Your task to perform on an android device: Open Android settings Image 0: 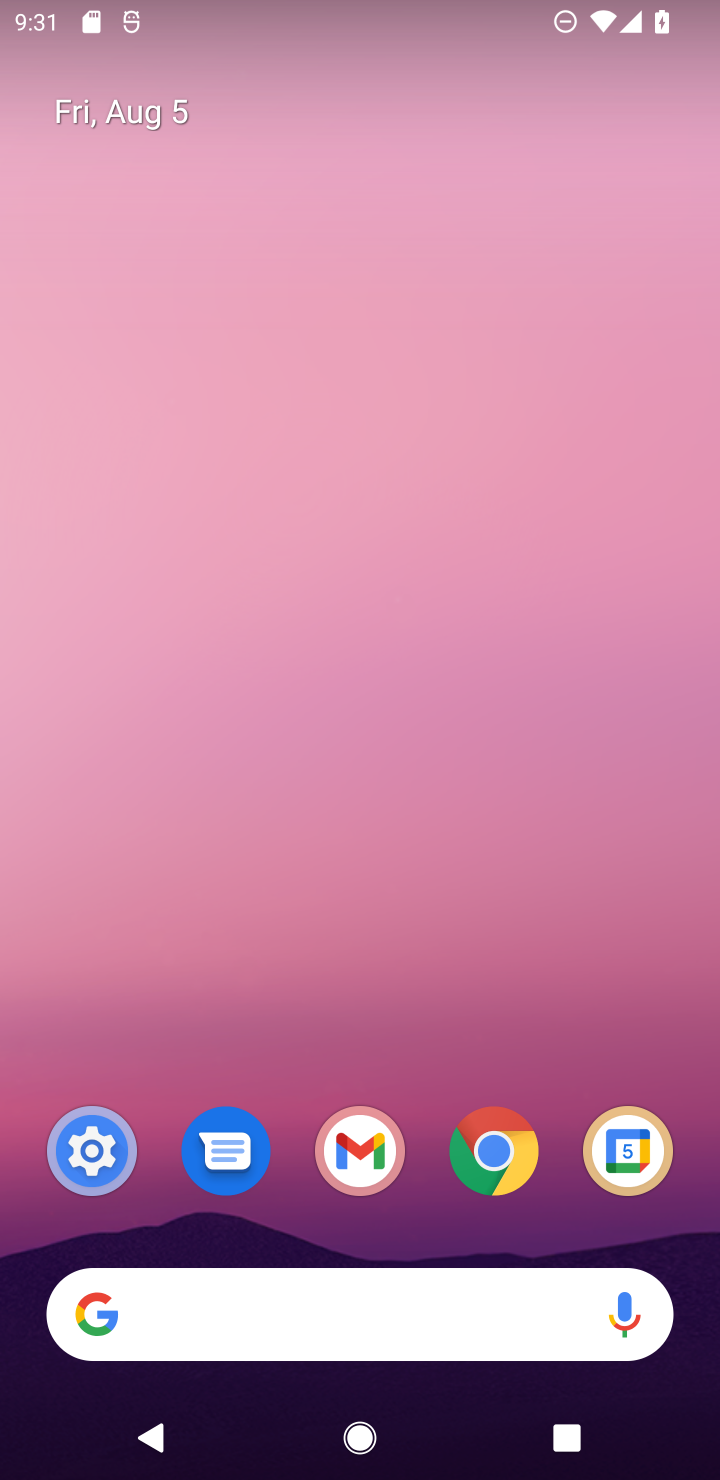
Step 0: click (95, 1149)
Your task to perform on an android device: Open Android settings Image 1: 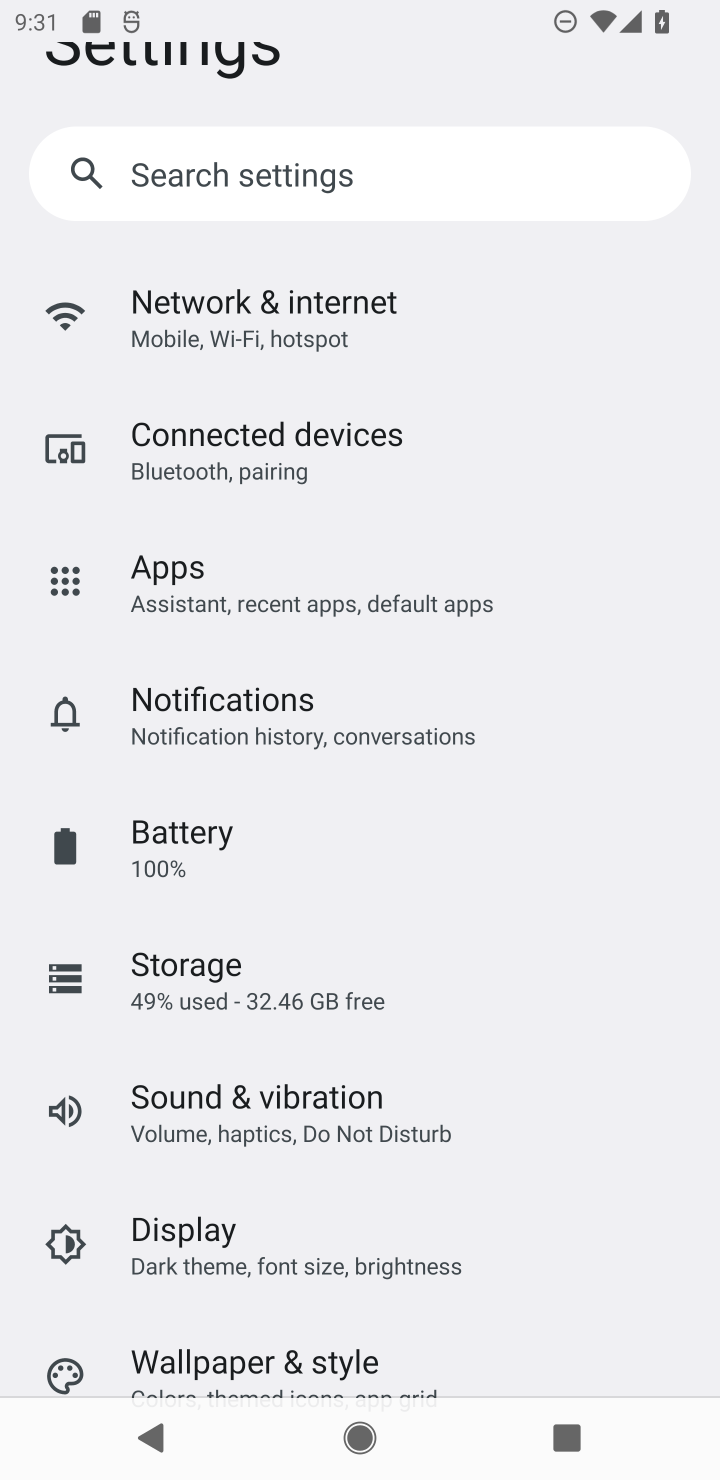
Step 1: drag from (419, 783) to (438, 295)
Your task to perform on an android device: Open Android settings Image 2: 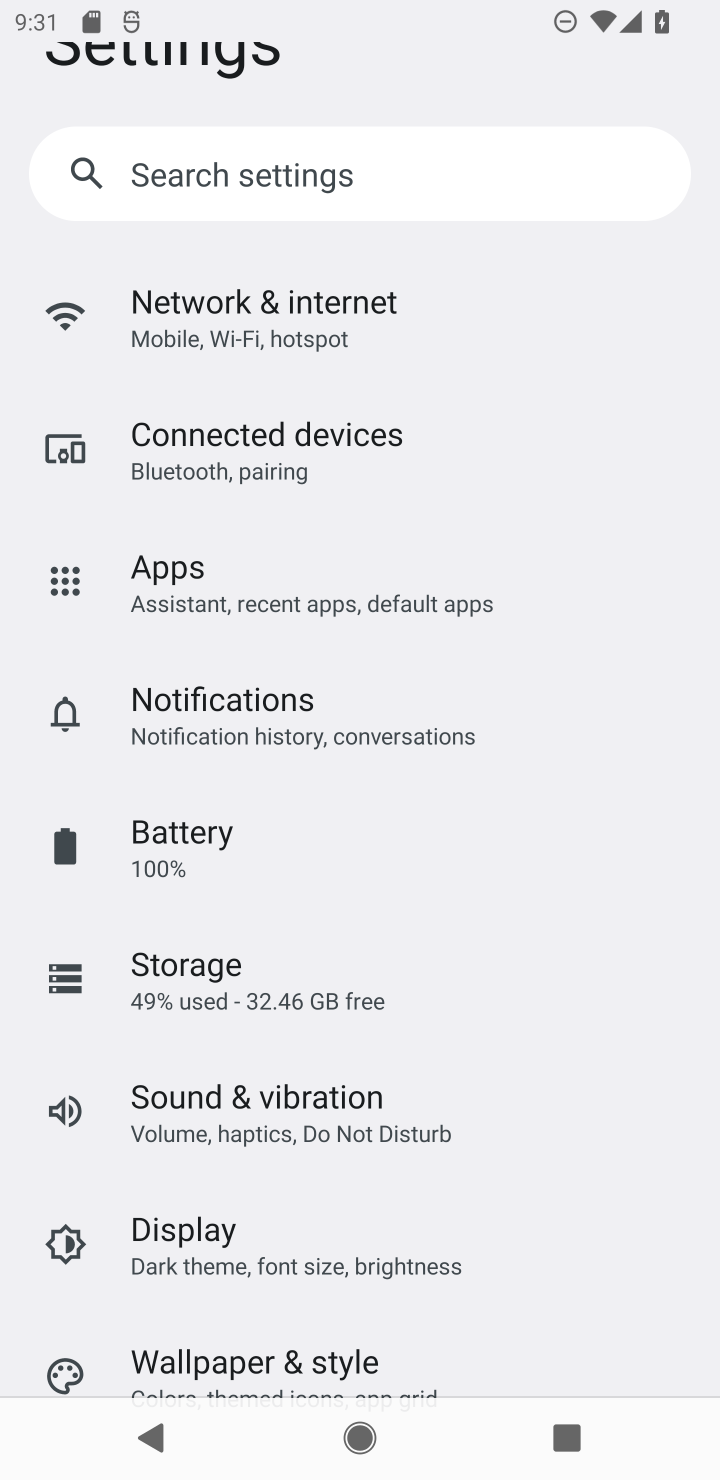
Step 2: drag from (250, 1060) to (309, 221)
Your task to perform on an android device: Open Android settings Image 3: 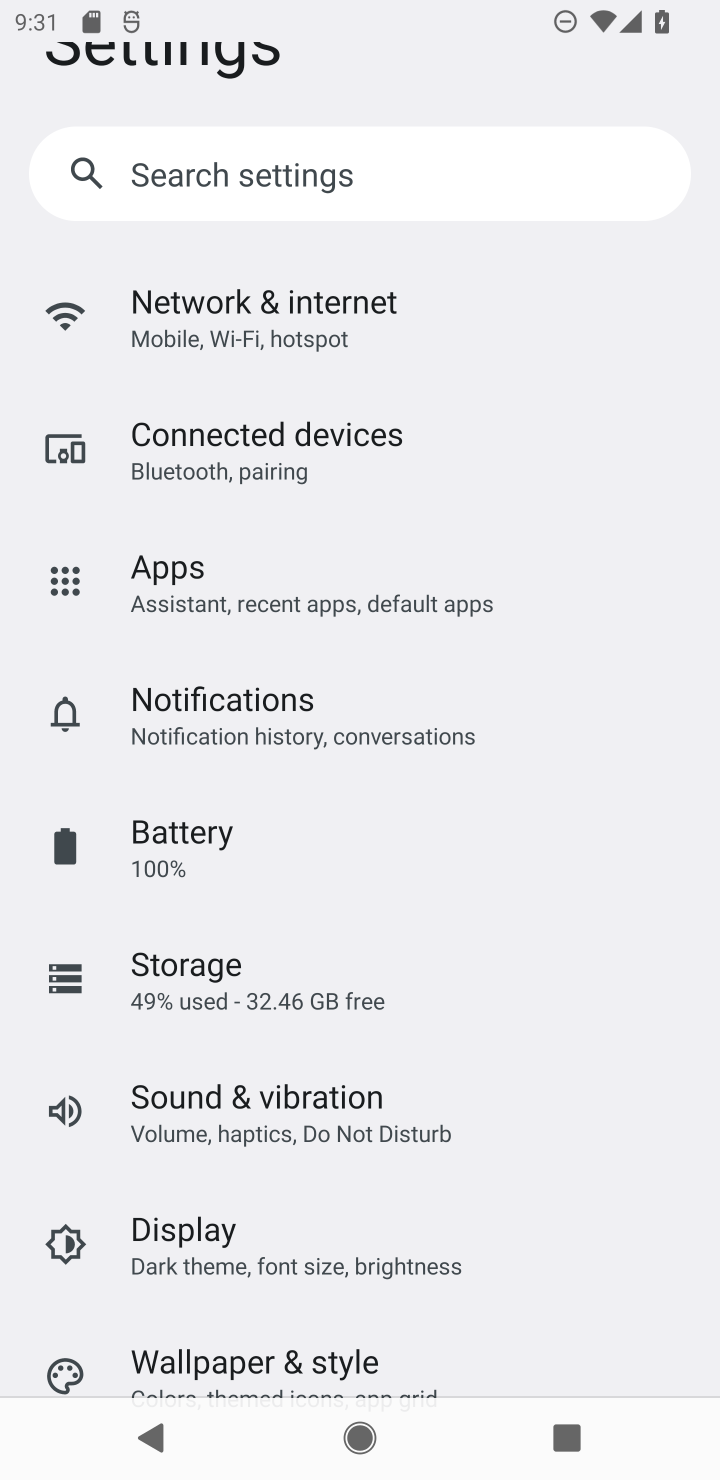
Step 3: drag from (280, 951) to (334, 332)
Your task to perform on an android device: Open Android settings Image 4: 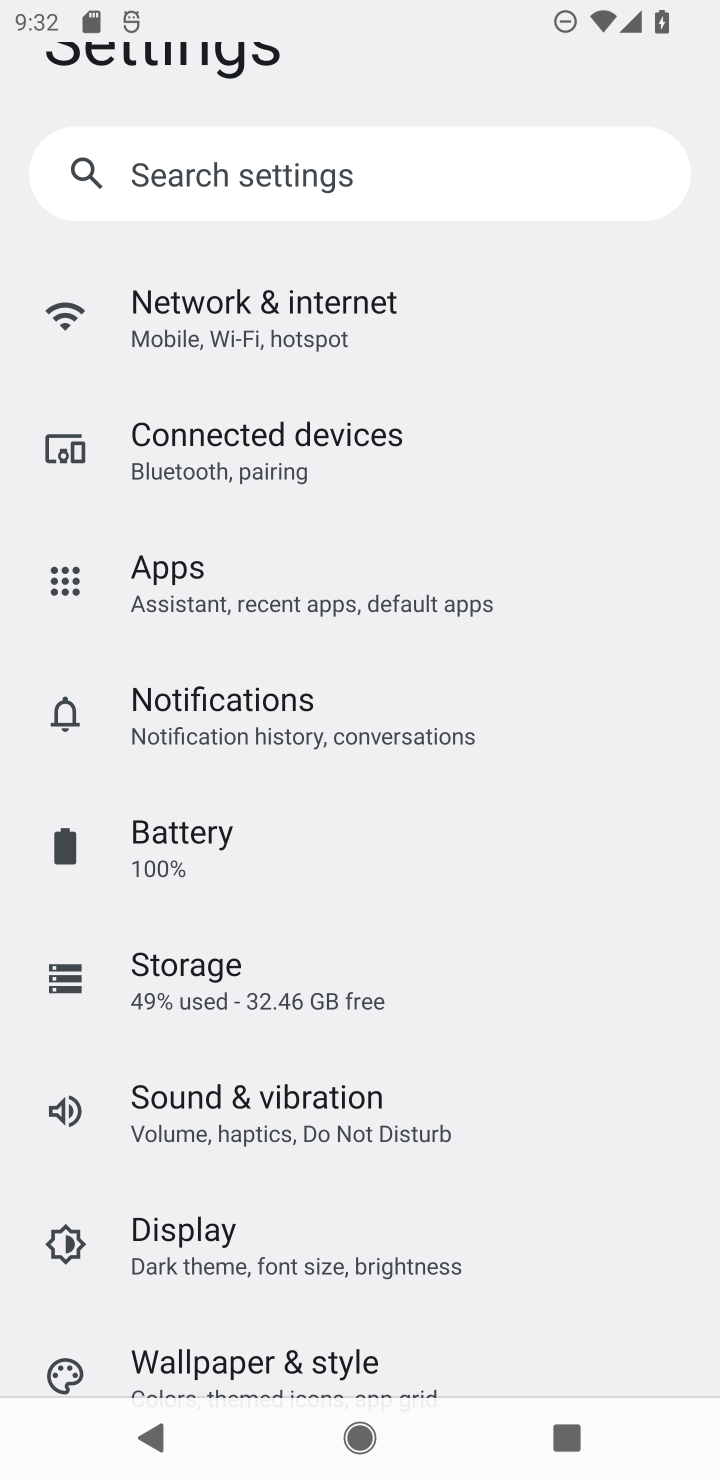
Step 4: drag from (290, 1284) to (341, 649)
Your task to perform on an android device: Open Android settings Image 5: 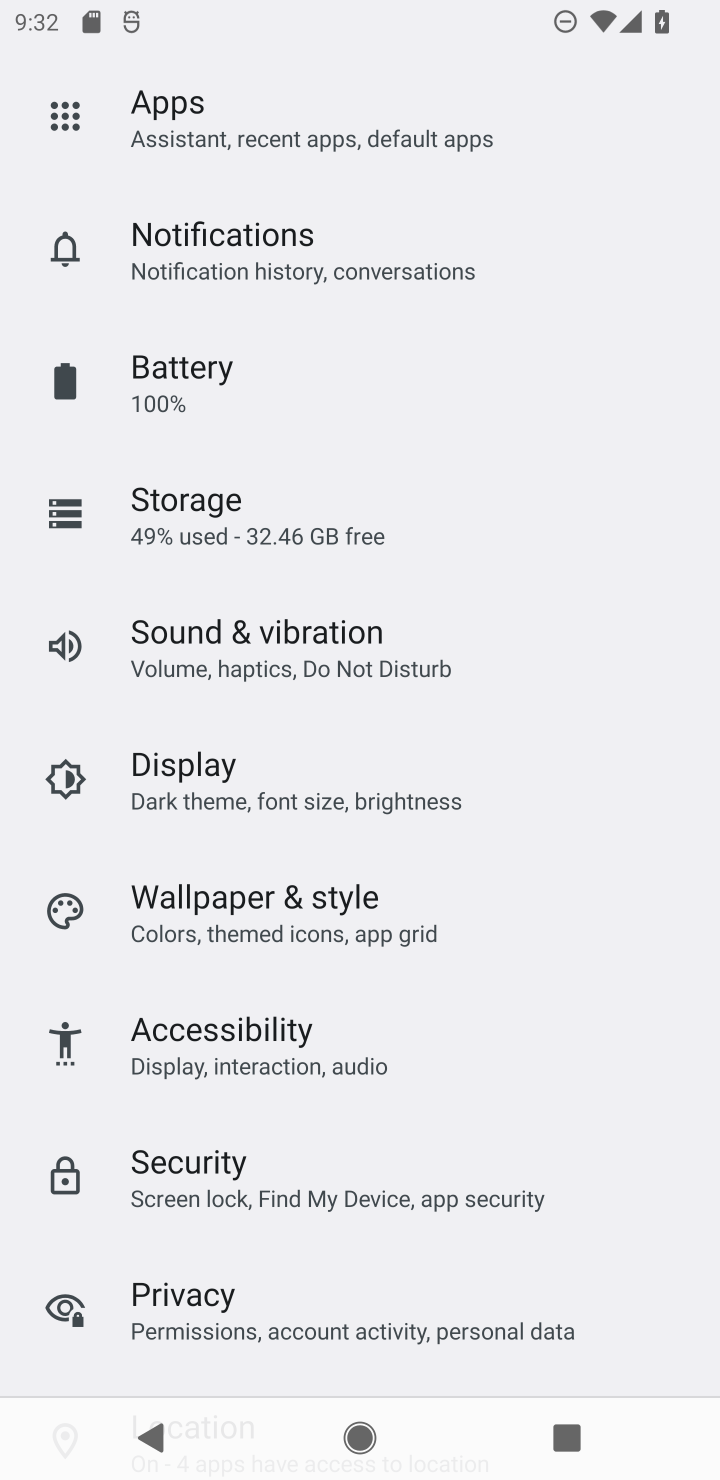
Step 5: drag from (305, 1102) to (330, 710)
Your task to perform on an android device: Open Android settings Image 6: 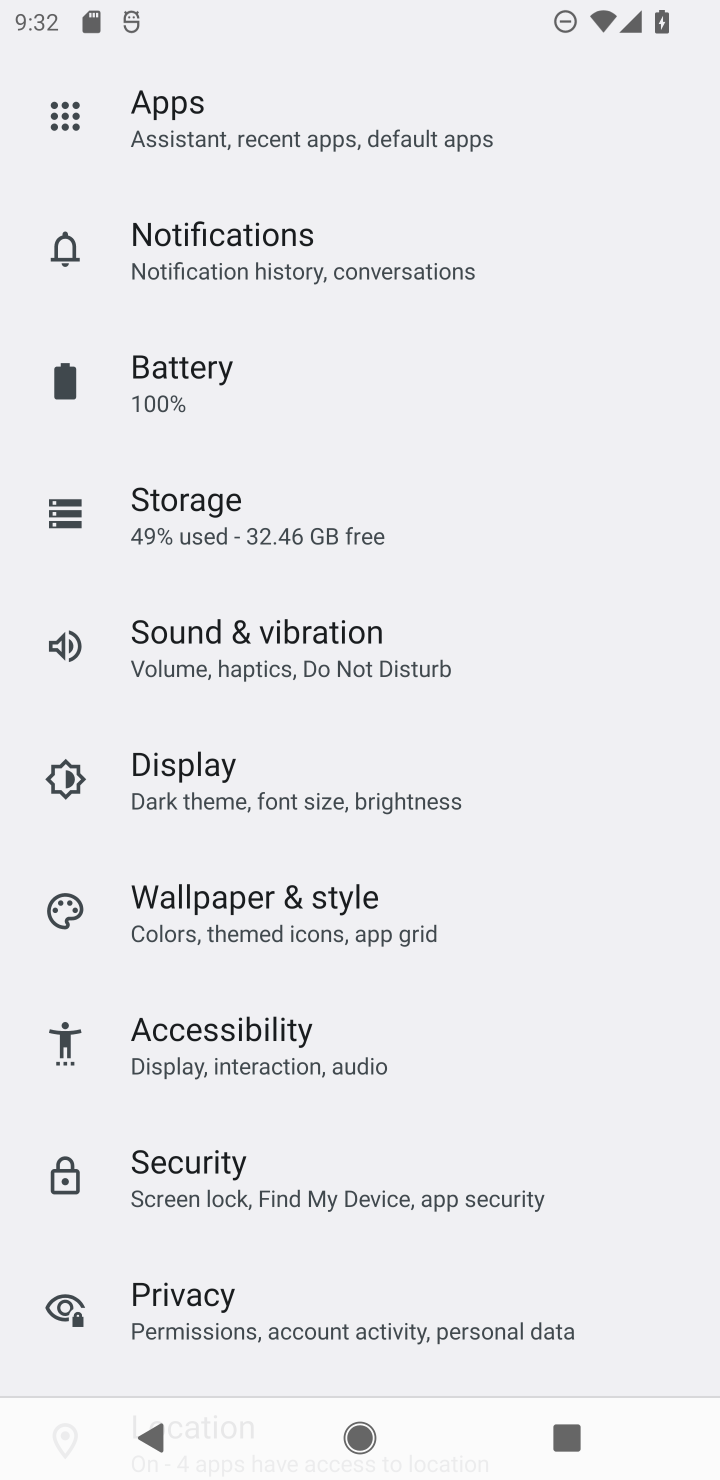
Step 6: drag from (302, 840) to (386, 271)
Your task to perform on an android device: Open Android settings Image 7: 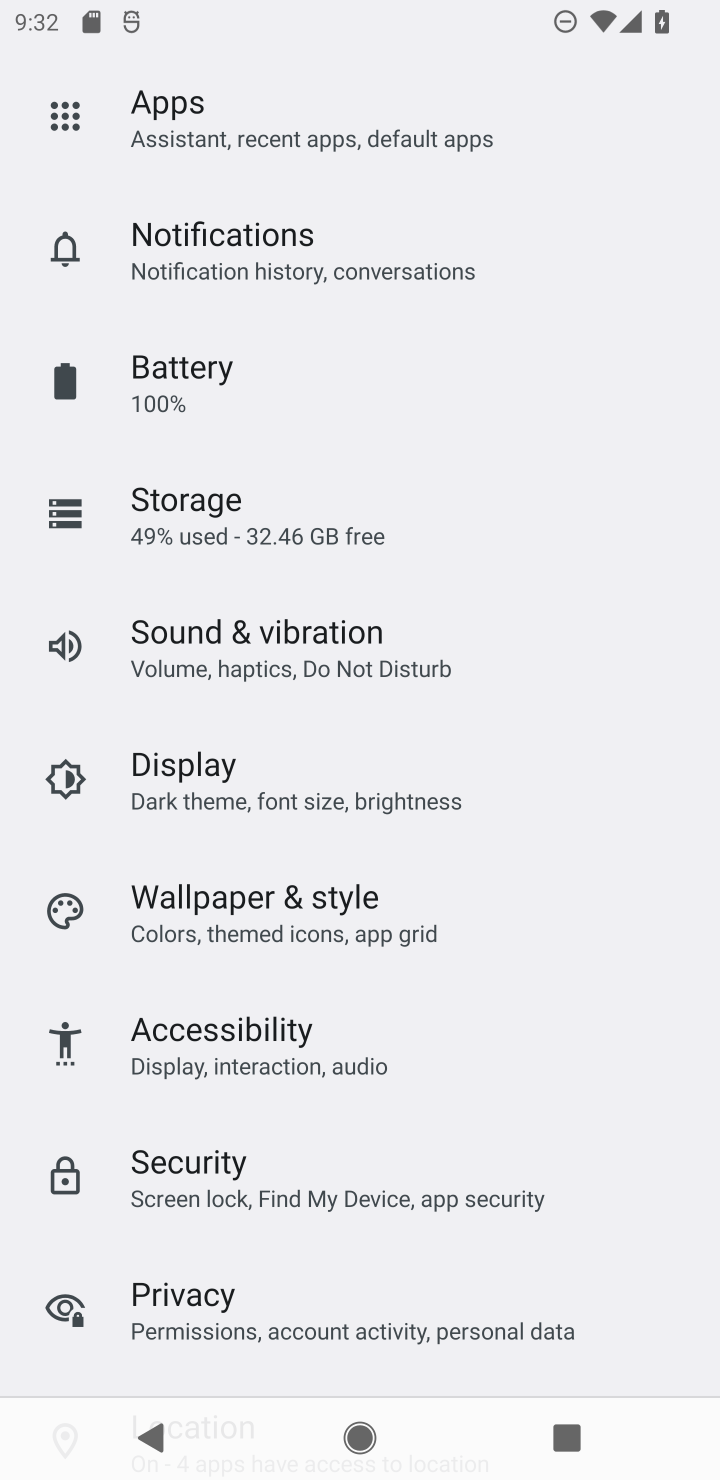
Step 7: drag from (268, 1202) to (329, 358)
Your task to perform on an android device: Open Android settings Image 8: 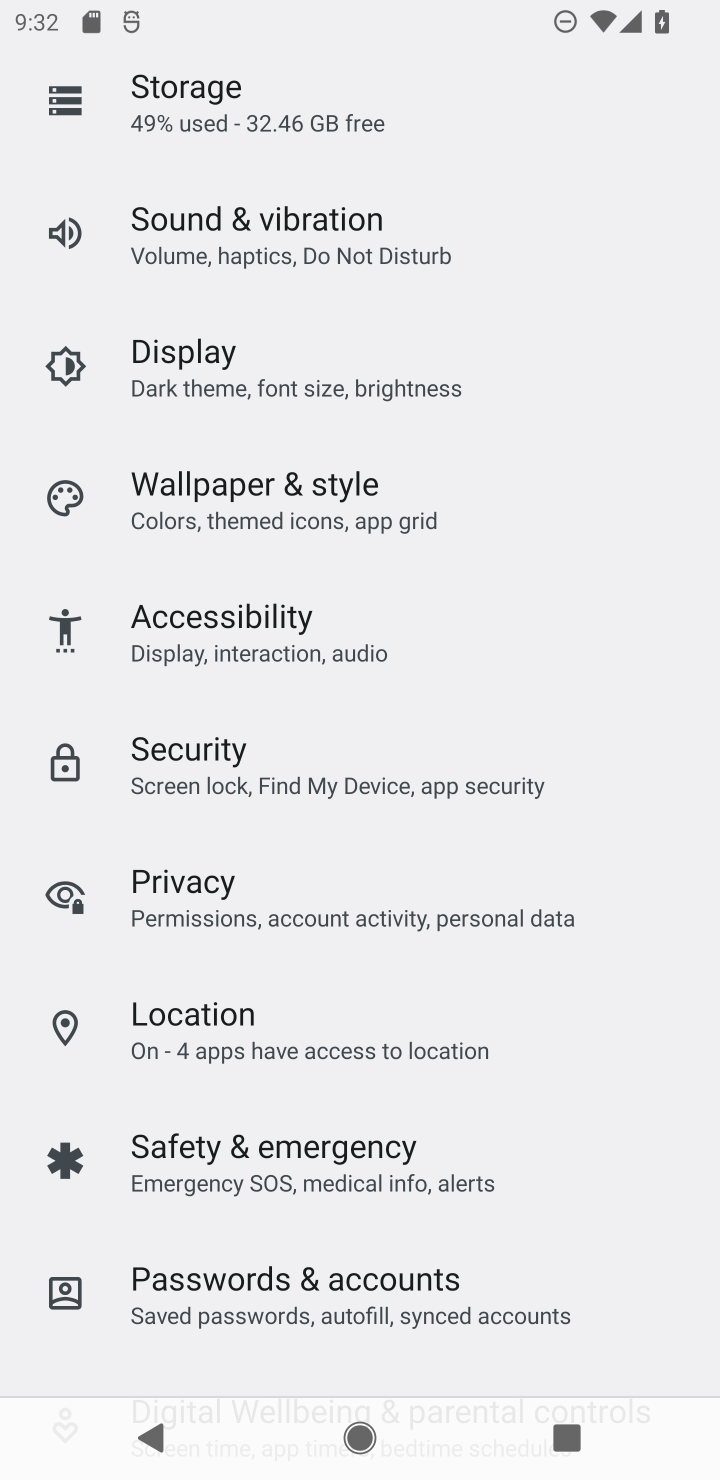
Step 8: drag from (276, 1233) to (342, 506)
Your task to perform on an android device: Open Android settings Image 9: 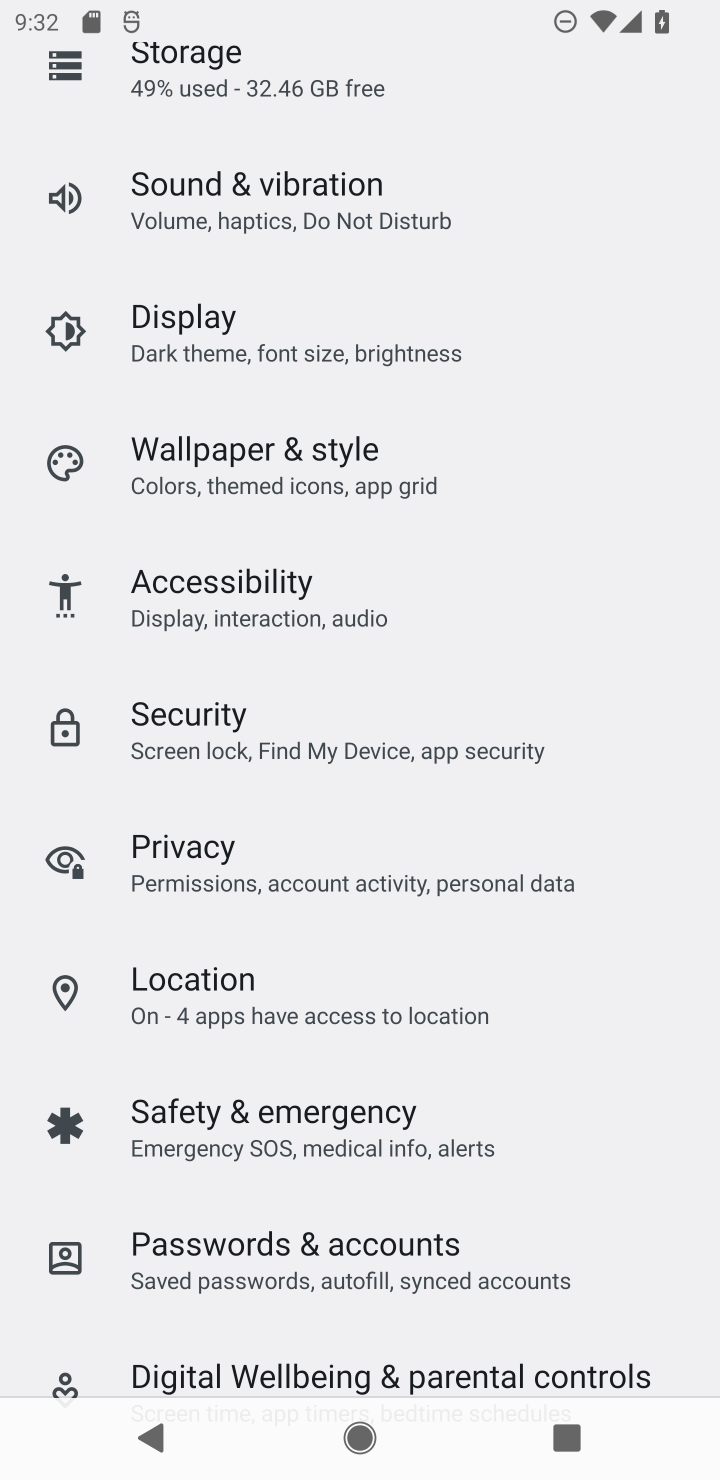
Step 9: drag from (294, 1253) to (358, 545)
Your task to perform on an android device: Open Android settings Image 10: 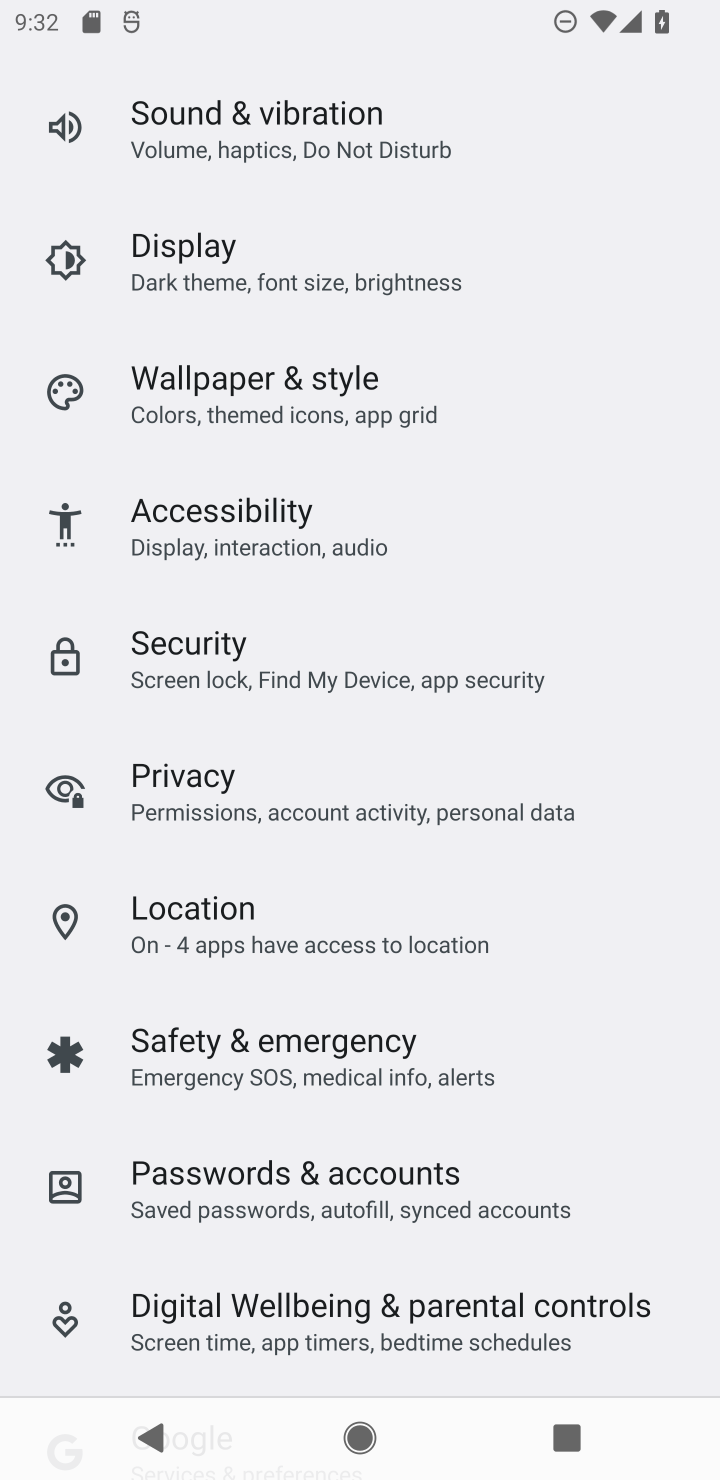
Step 10: drag from (341, 1085) to (385, 466)
Your task to perform on an android device: Open Android settings Image 11: 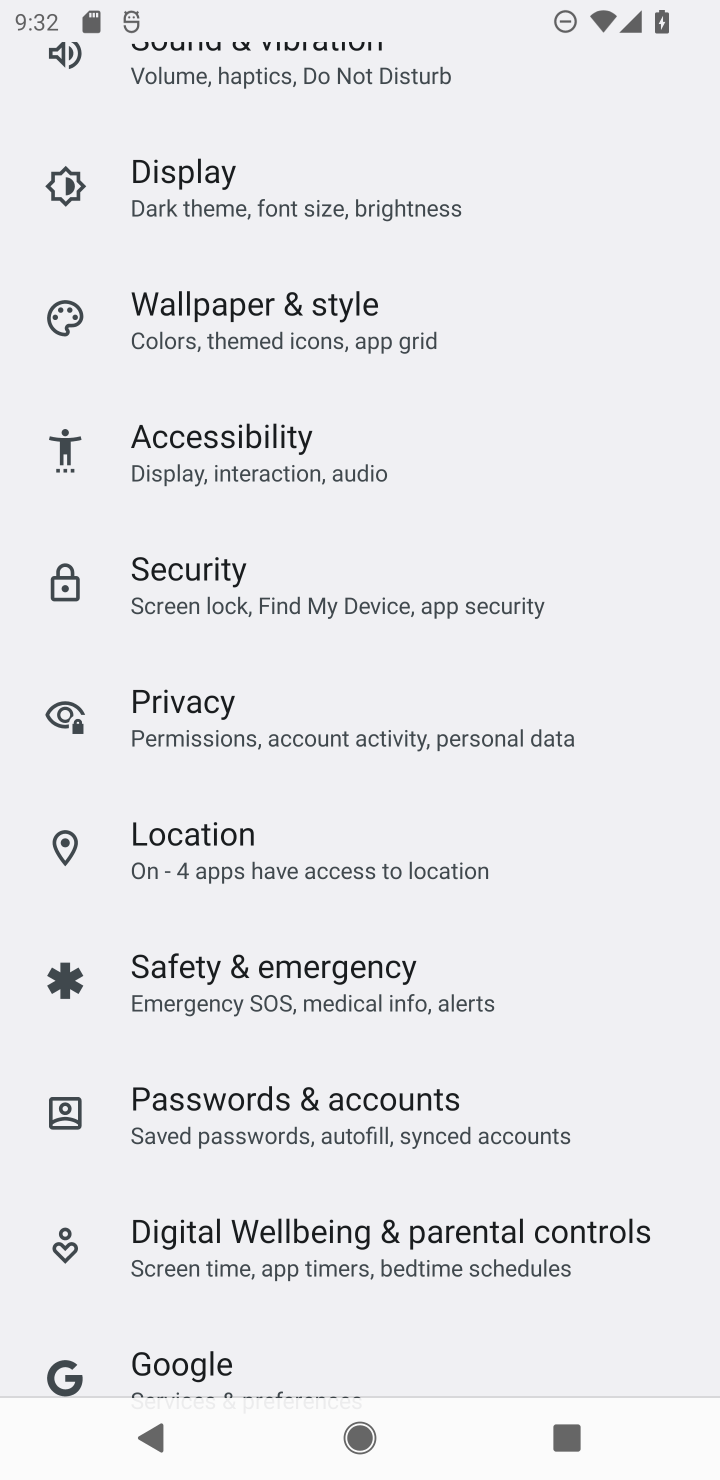
Step 11: drag from (334, 1266) to (334, 558)
Your task to perform on an android device: Open Android settings Image 12: 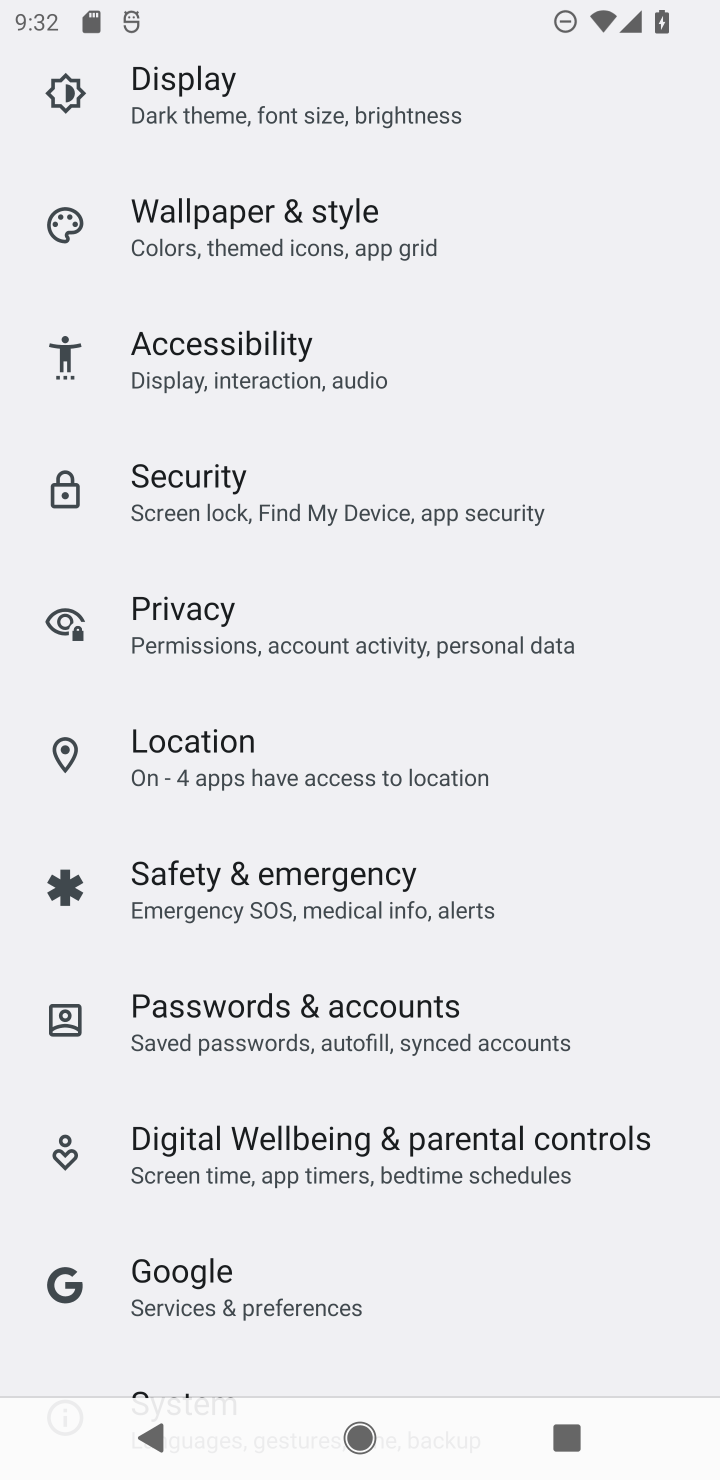
Step 12: drag from (363, 1014) to (375, 405)
Your task to perform on an android device: Open Android settings Image 13: 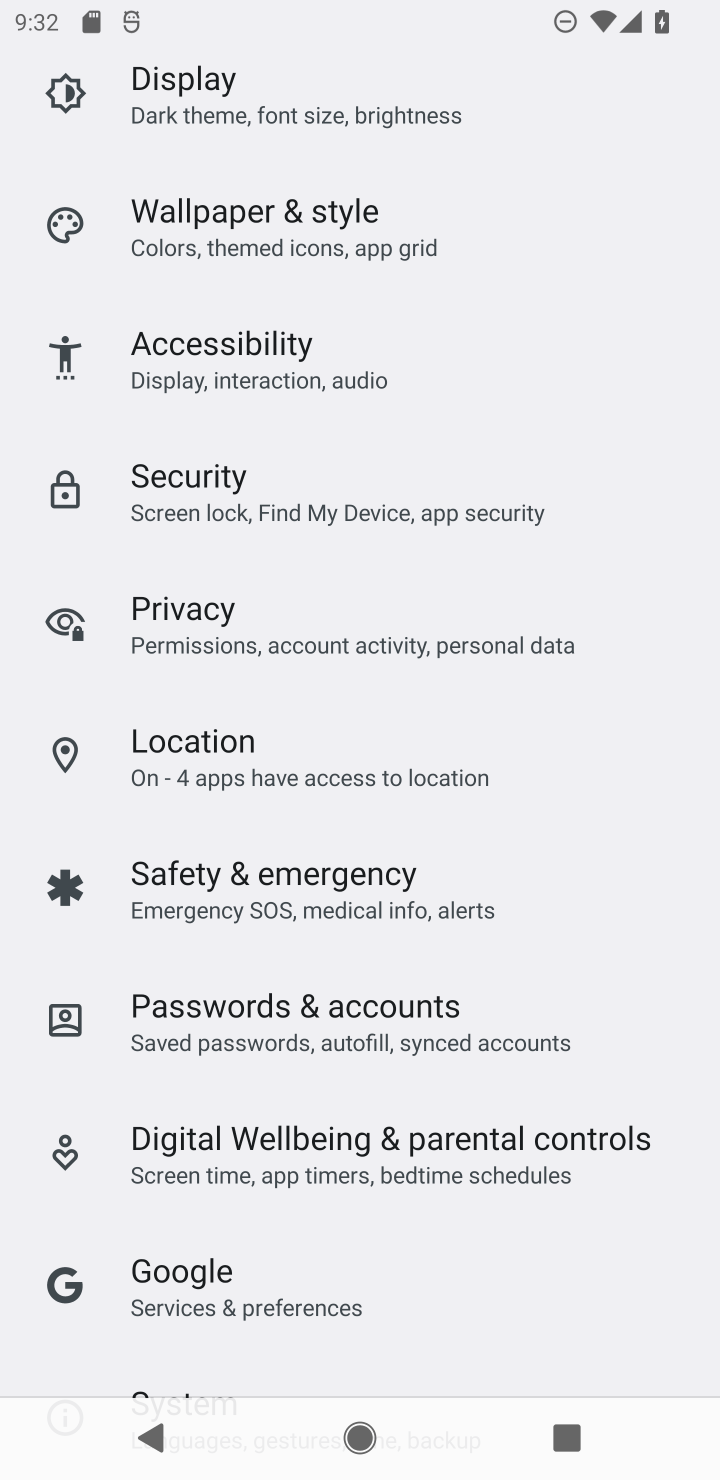
Step 13: drag from (363, 1255) to (323, 105)
Your task to perform on an android device: Open Android settings Image 14: 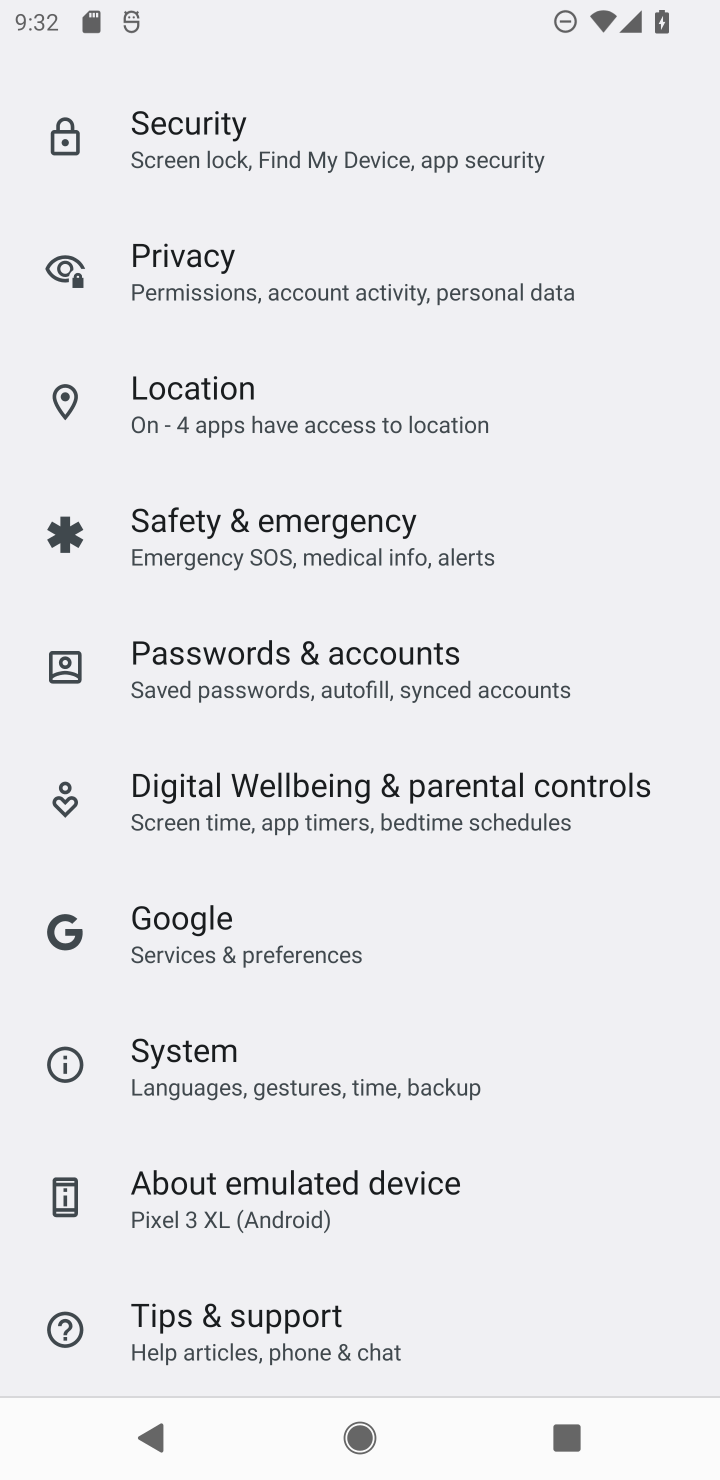
Step 14: click (271, 1190)
Your task to perform on an android device: Open Android settings Image 15: 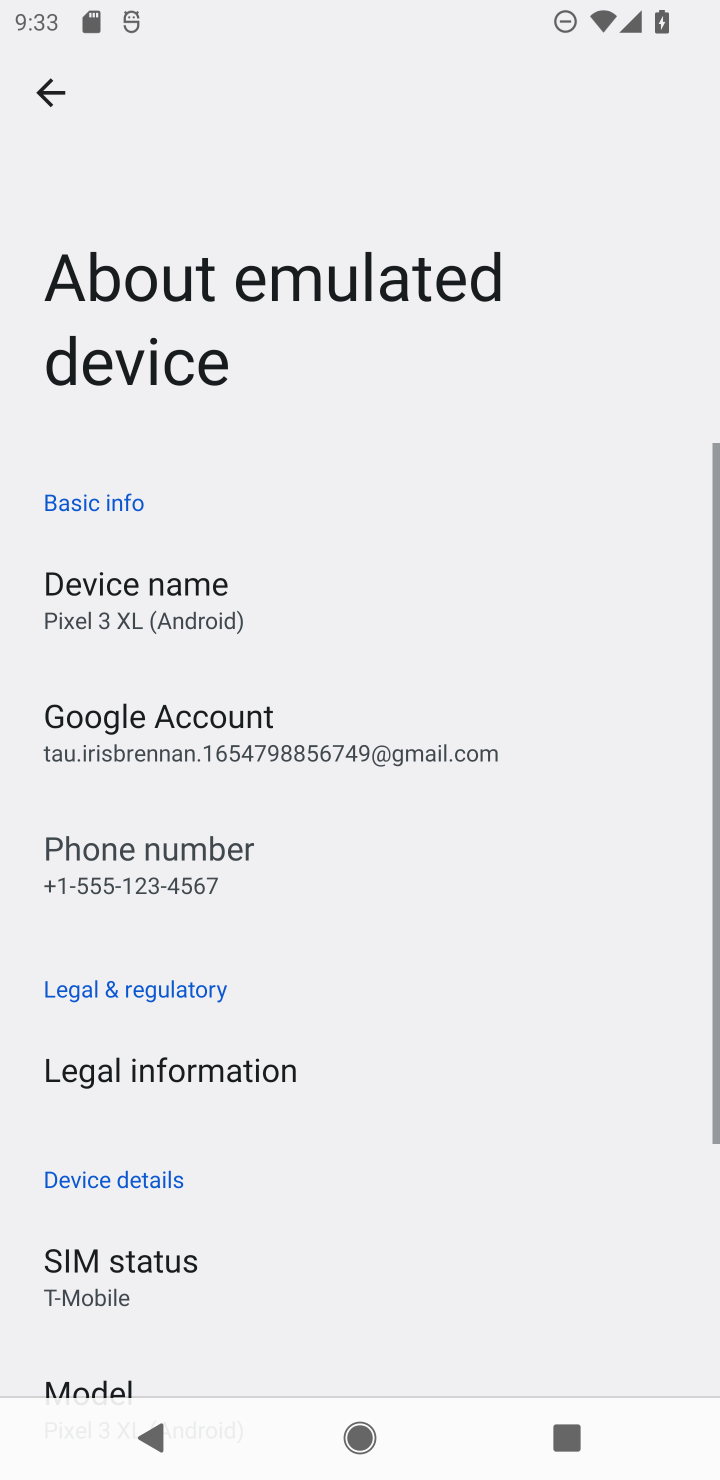
Step 15: click (155, 603)
Your task to perform on an android device: Open Android settings Image 16: 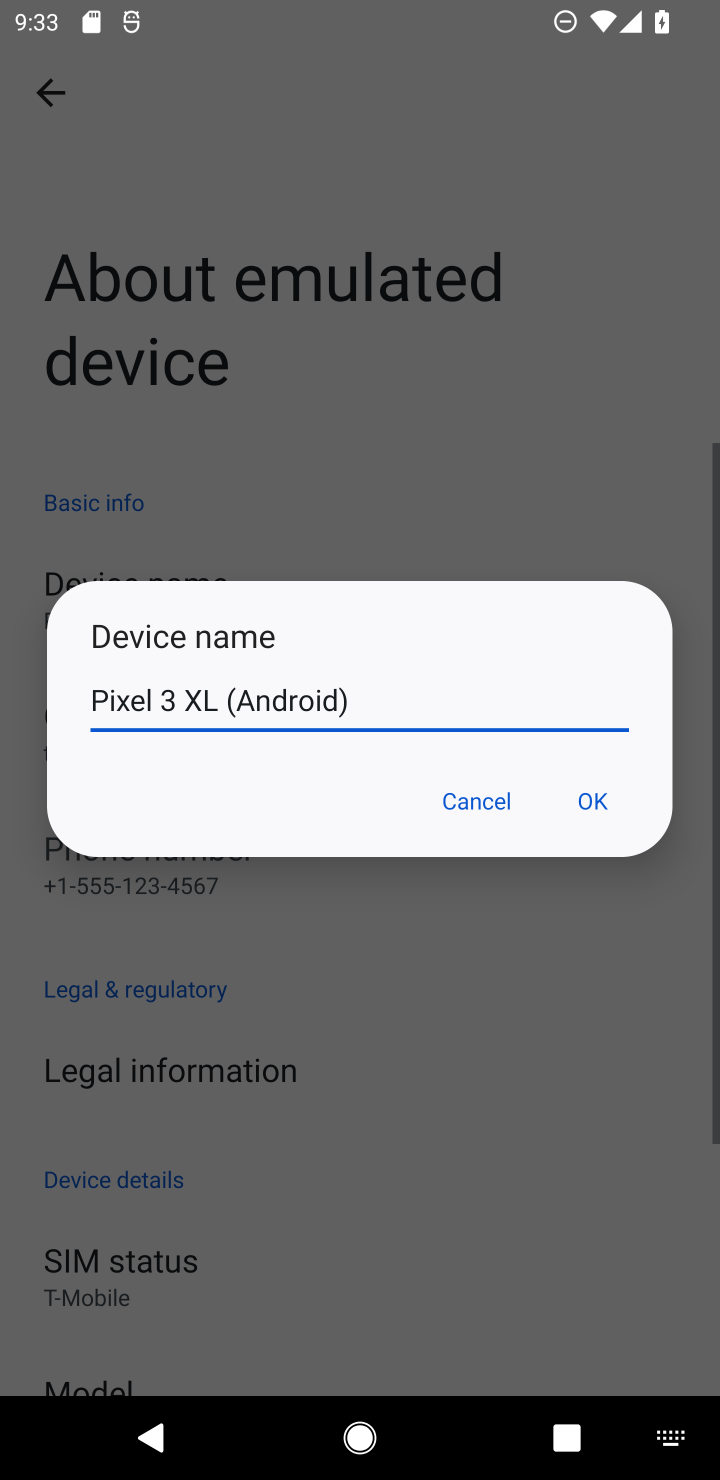
Step 16: click (481, 805)
Your task to perform on an android device: Open Android settings Image 17: 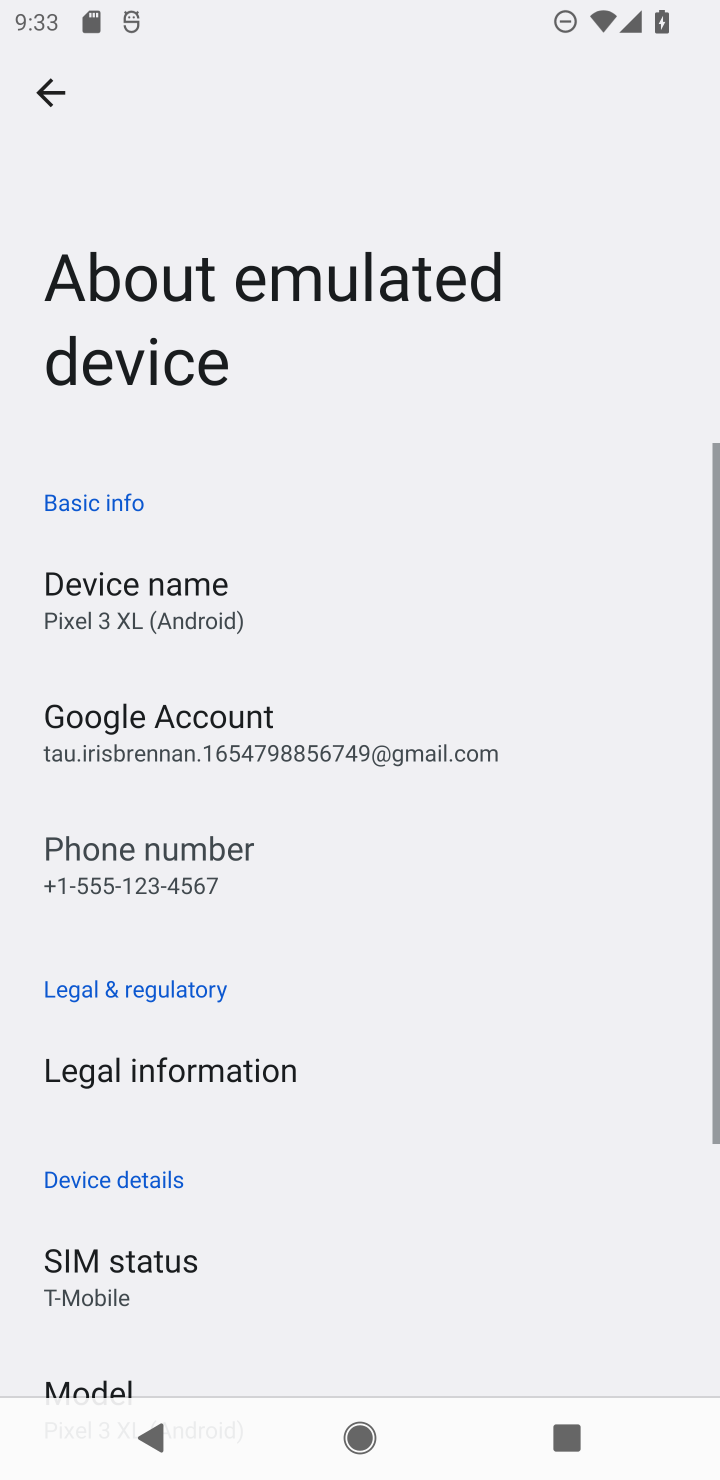
Step 17: drag from (233, 1267) to (193, 590)
Your task to perform on an android device: Open Android settings Image 18: 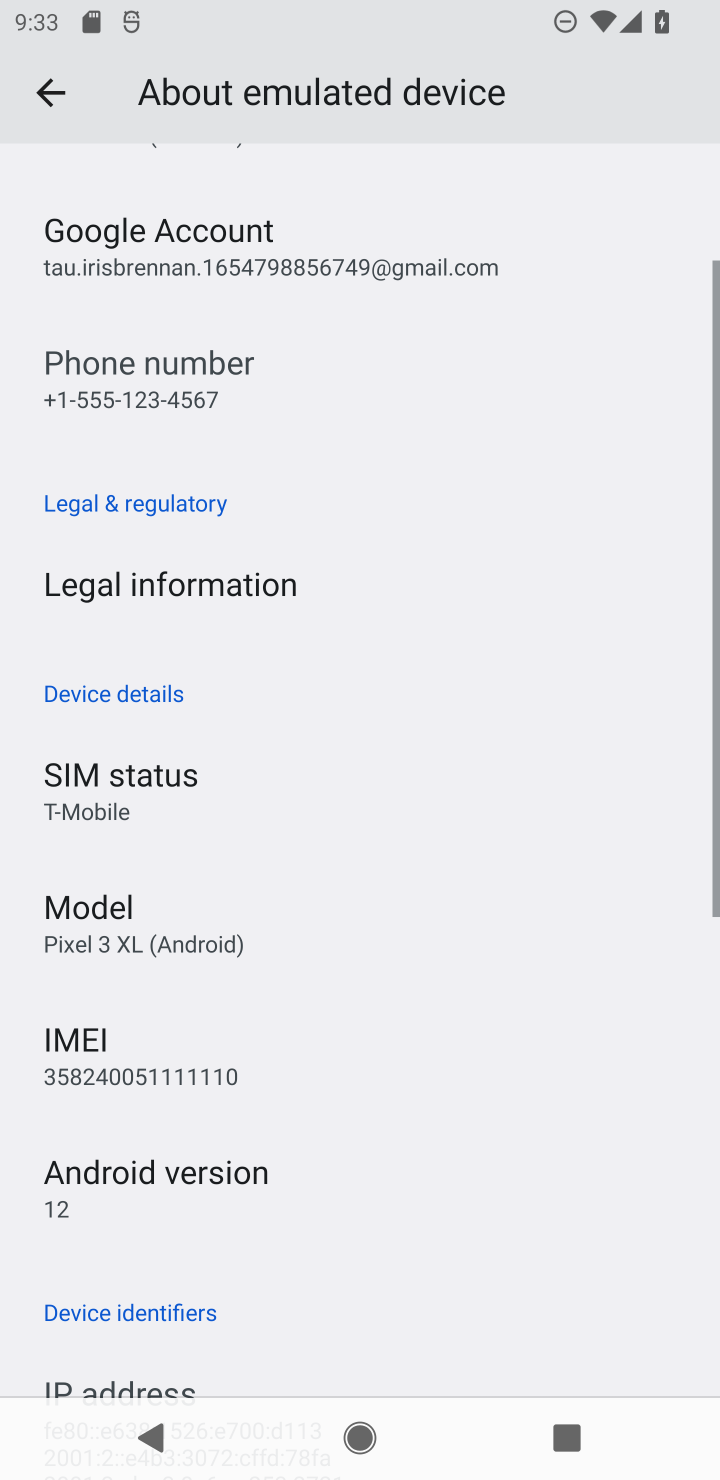
Step 18: click (161, 1217)
Your task to perform on an android device: Open Android settings Image 19: 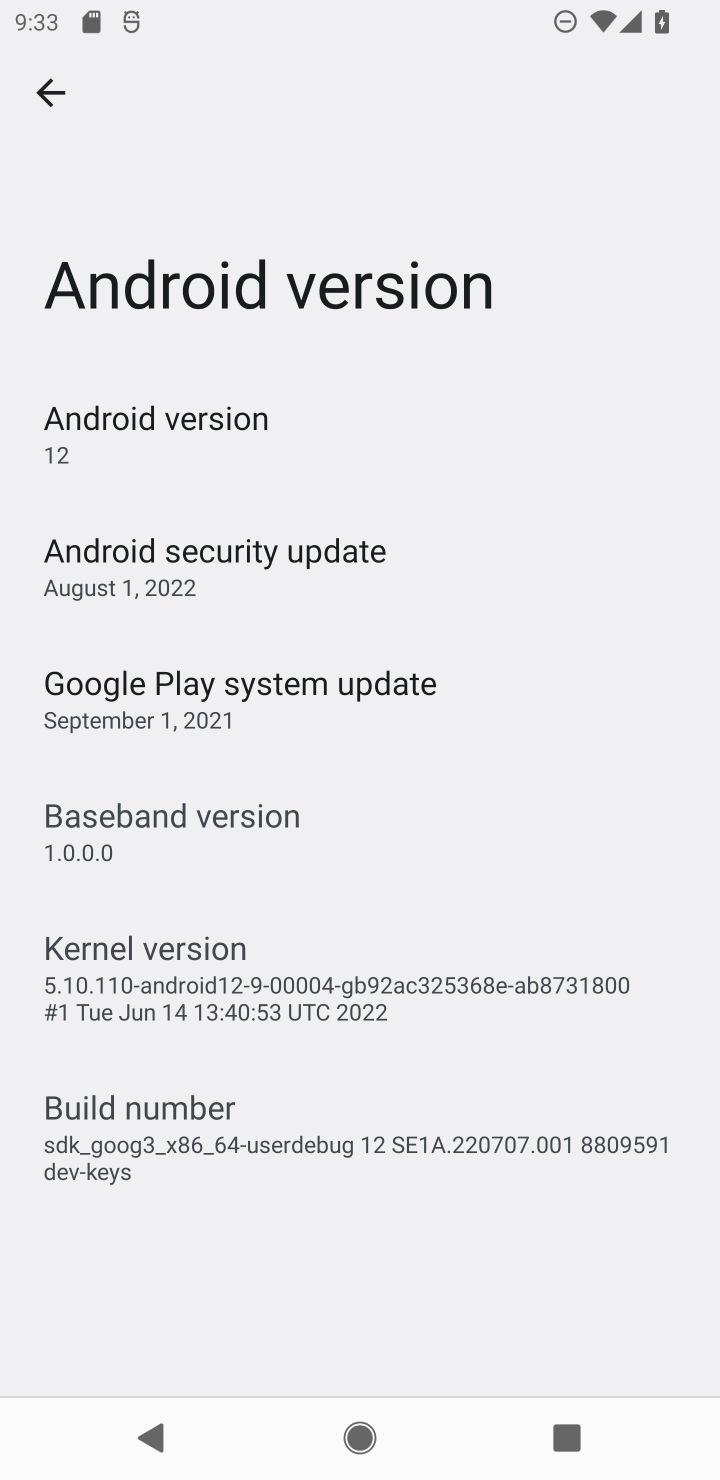
Step 19: task complete